Your task to perform on an android device: Open accessibility settings Image 0: 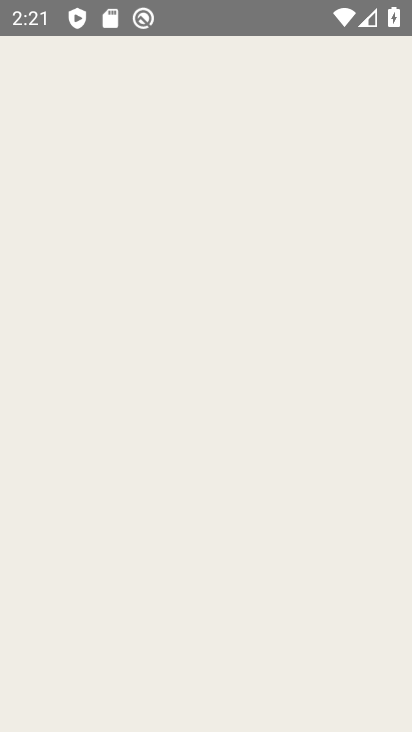
Step 0: press home button
Your task to perform on an android device: Open accessibility settings Image 1: 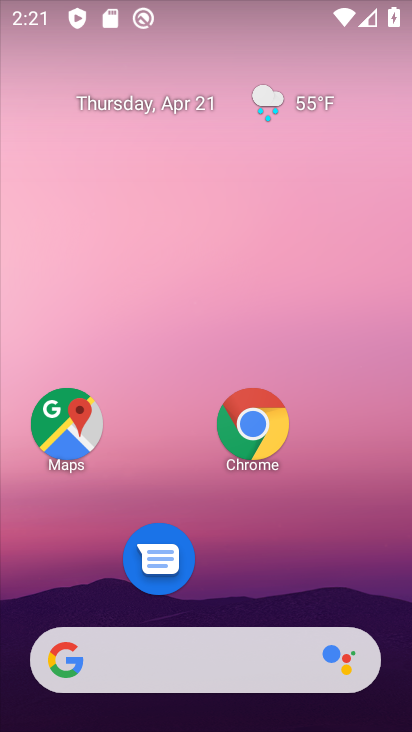
Step 1: drag from (282, 531) to (245, 39)
Your task to perform on an android device: Open accessibility settings Image 2: 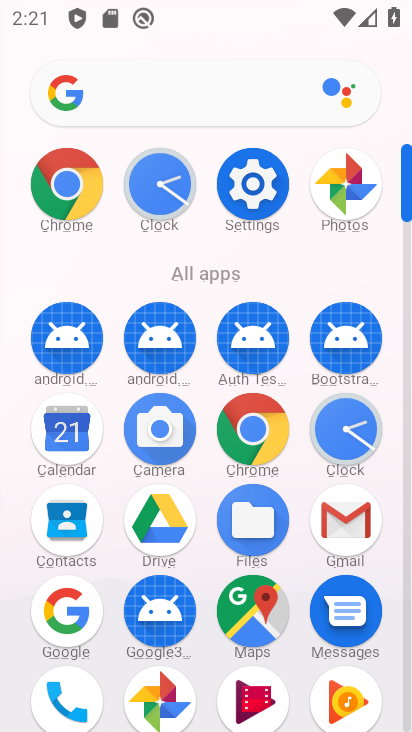
Step 2: click (256, 184)
Your task to perform on an android device: Open accessibility settings Image 3: 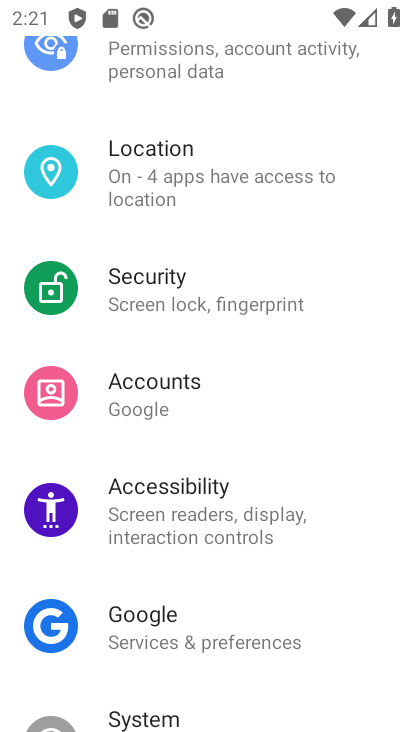
Step 3: click (186, 511)
Your task to perform on an android device: Open accessibility settings Image 4: 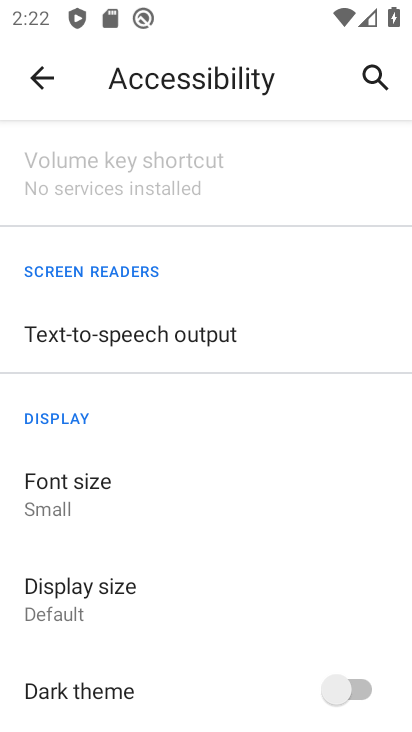
Step 4: task complete